Your task to perform on an android device: What is the news today? Image 0: 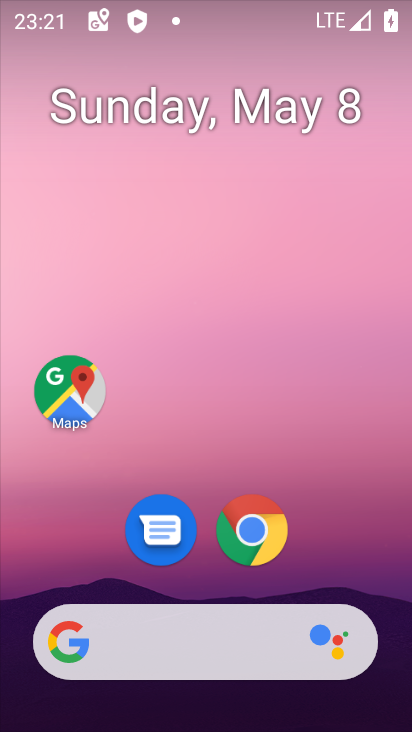
Step 0: drag from (356, 534) to (383, 152)
Your task to perform on an android device: What is the news today? Image 1: 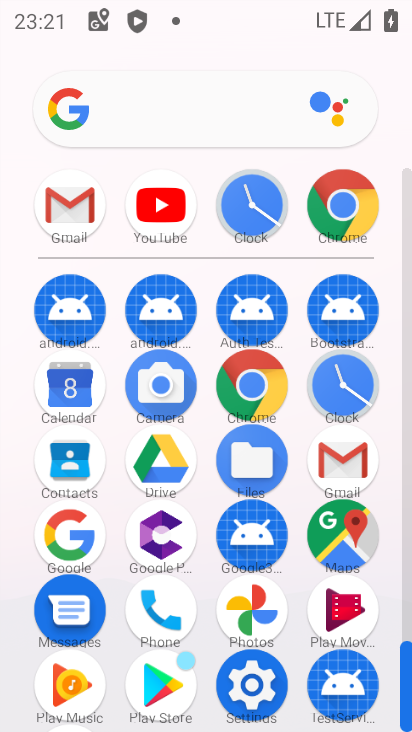
Step 1: click (234, 376)
Your task to perform on an android device: What is the news today? Image 2: 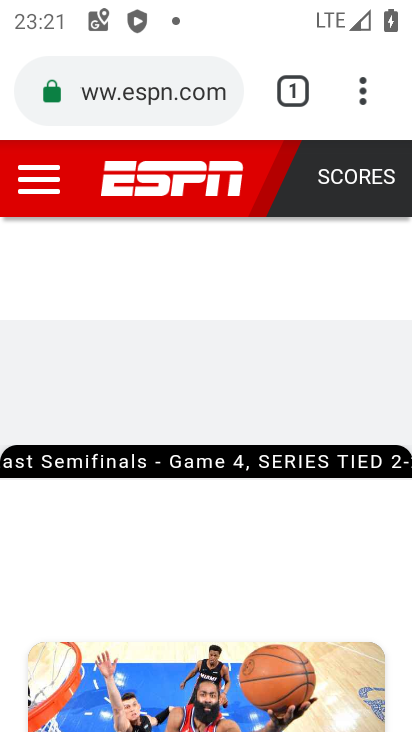
Step 2: click (197, 88)
Your task to perform on an android device: What is the news today? Image 3: 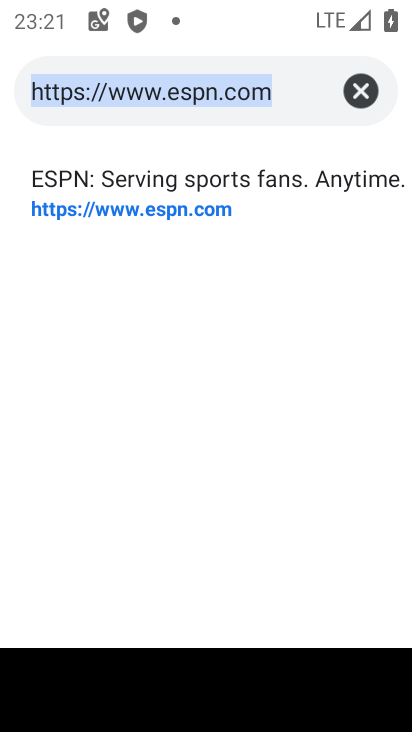
Step 3: click (355, 85)
Your task to perform on an android device: What is the news today? Image 4: 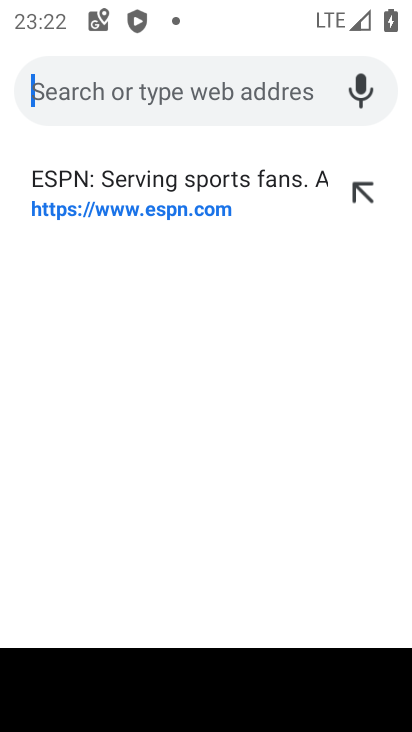
Step 4: type "what is the news today"
Your task to perform on an android device: What is the news today? Image 5: 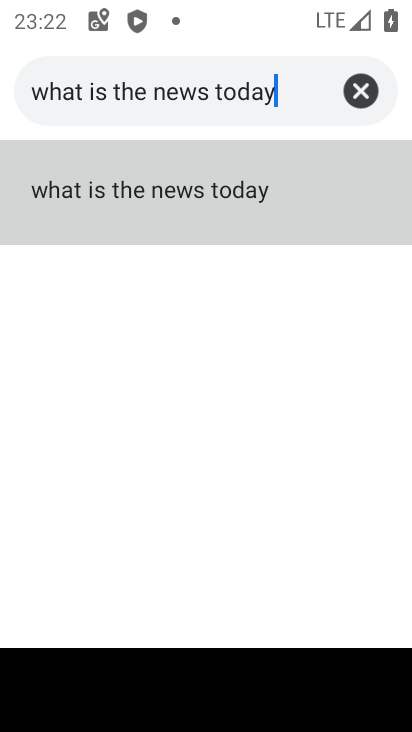
Step 5: click (227, 218)
Your task to perform on an android device: What is the news today? Image 6: 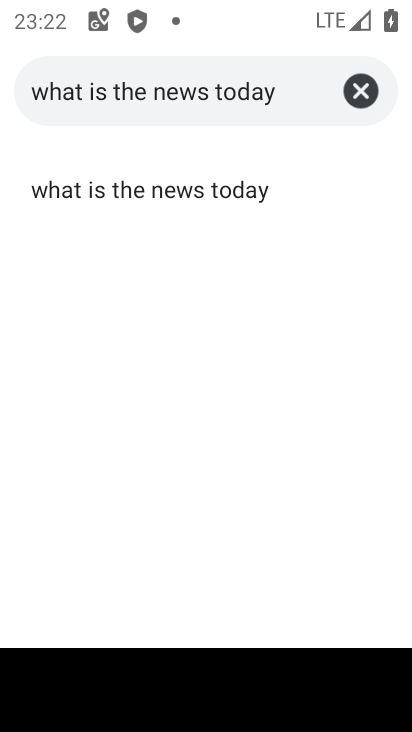
Step 6: click (226, 193)
Your task to perform on an android device: What is the news today? Image 7: 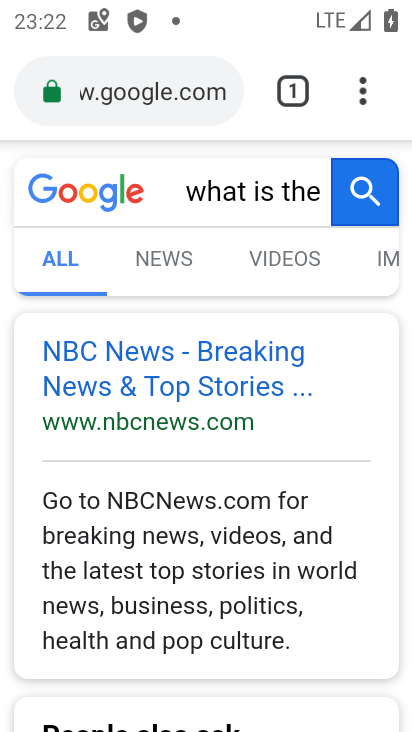
Step 7: task complete